Your task to perform on an android device: What's the weather? Image 0: 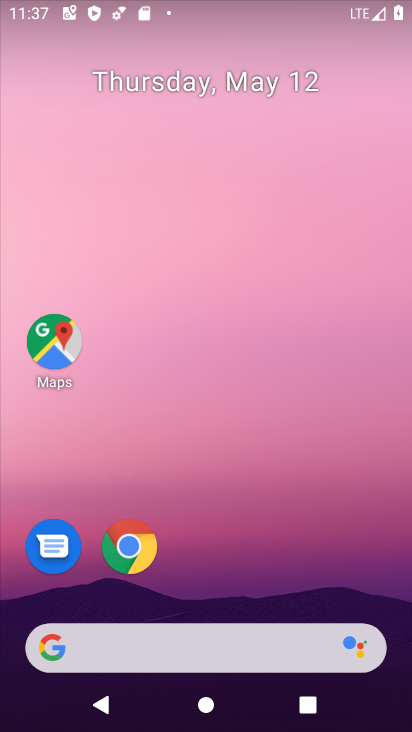
Step 0: drag from (319, 486) to (342, 362)
Your task to perform on an android device: What's the weather? Image 1: 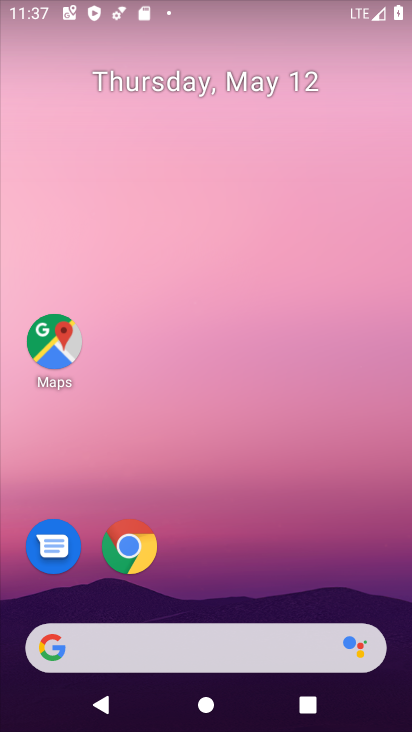
Step 1: click (172, 639)
Your task to perform on an android device: What's the weather? Image 2: 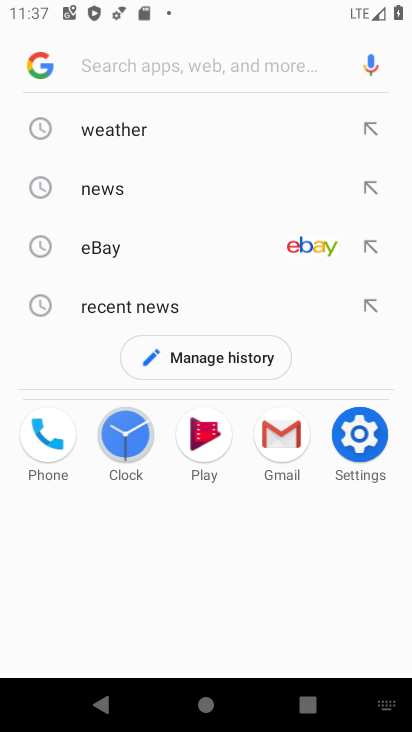
Step 2: click (138, 140)
Your task to perform on an android device: What's the weather? Image 3: 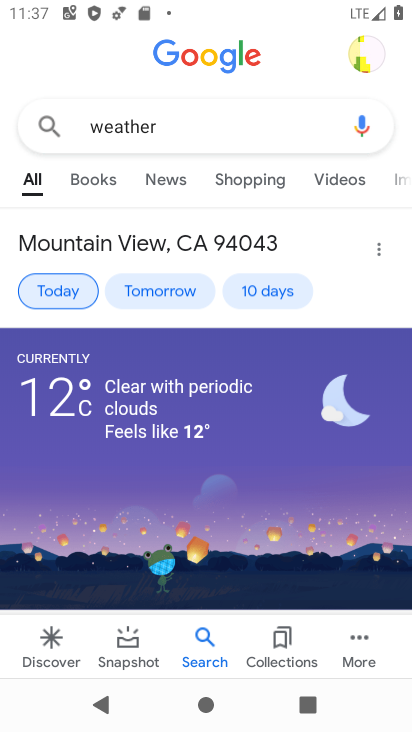
Step 3: task complete